Your task to perform on an android device: snooze an email in the gmail app Image 0: 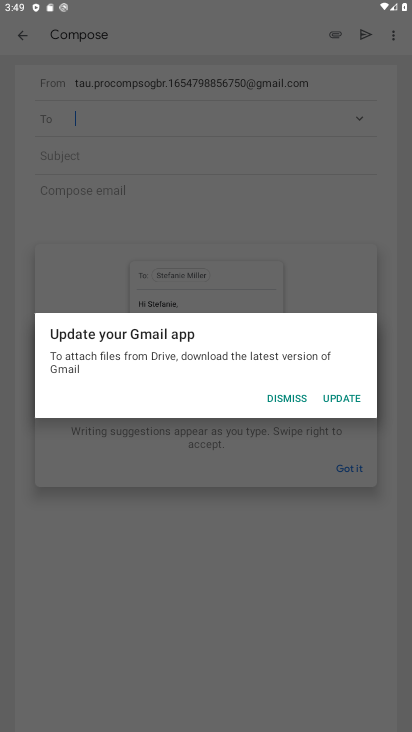
Step 0: click (293, 396)
Your task to perform on an android device: snooze an email in the gmail app Image 1: 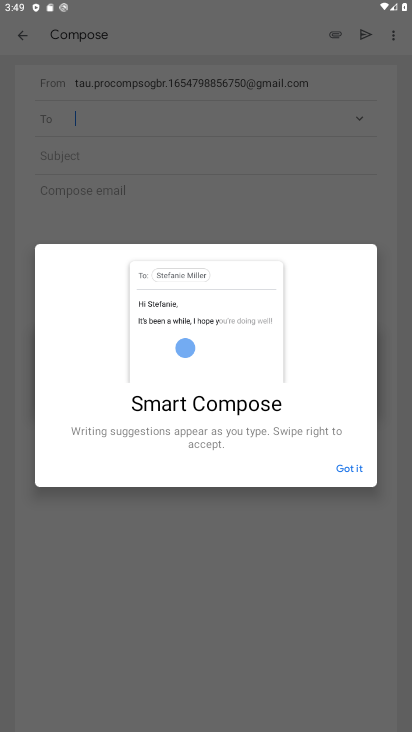
Step 1: click (348, 476)
Your task to perform on an android device: snooze an email in the gmail app Image 2: 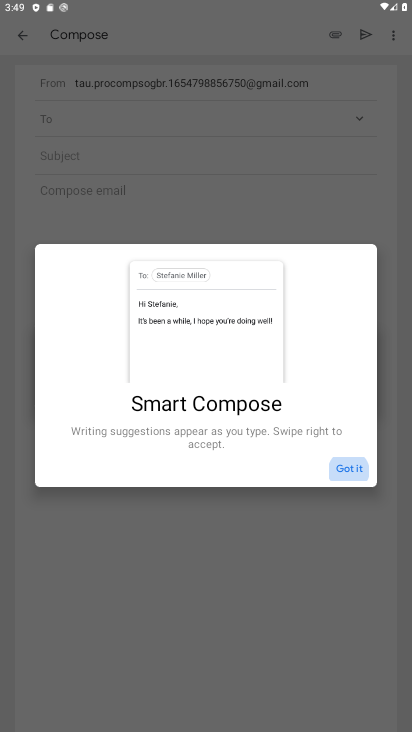
Step 2: click (348, 476)
Your task to perform on an android device: snooze an email in the gmail app Image 3: 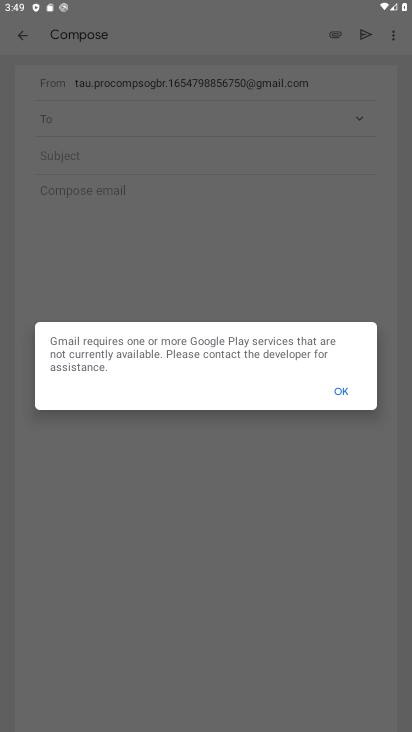
Step 3: click (346, 472)
Your task to perform on an android device: snooze an email in the gmail app Image 4: 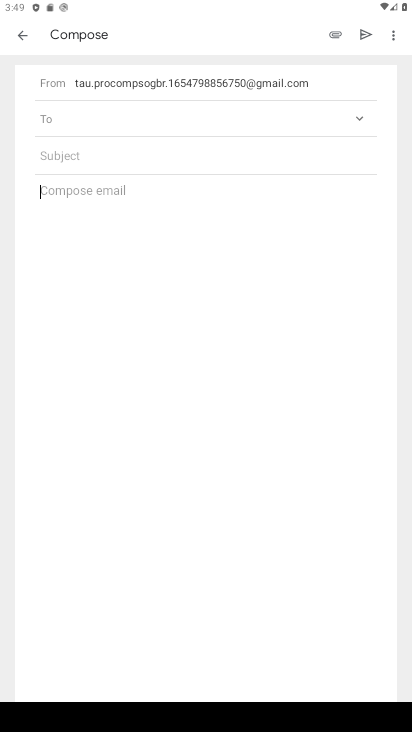
Step 4: click (31, 39)
Your task to perform on an android device: snooze an email in the gmail app Image 5: 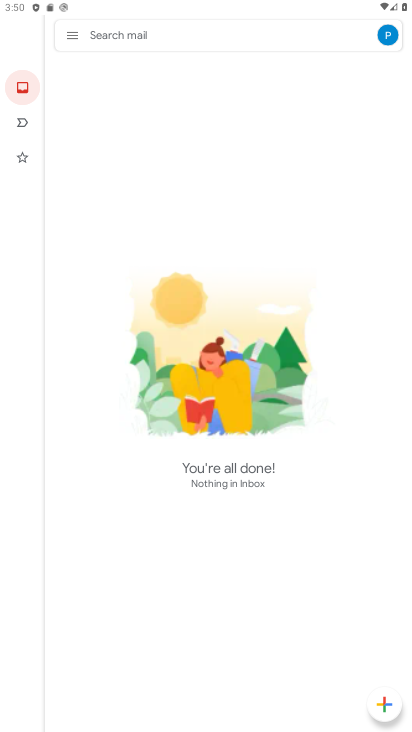
Step 5: click (81, 44)
Your task to perform on an android device: snooze an email in the gmail app Image 6: 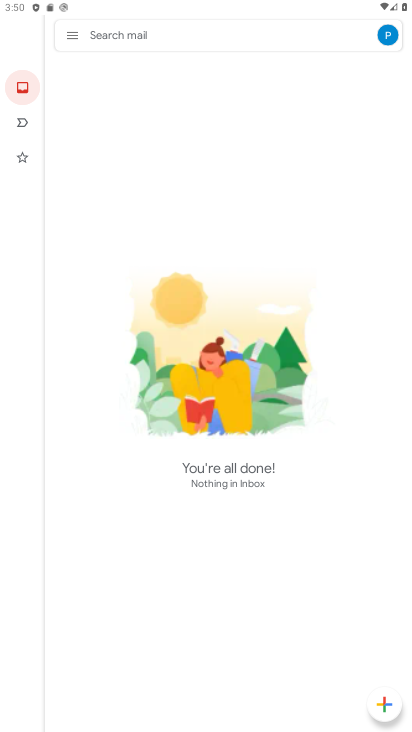
Step 6: click (76, 37)
Your task to perform on an android device: snooze an email in the gmail app Image 7: 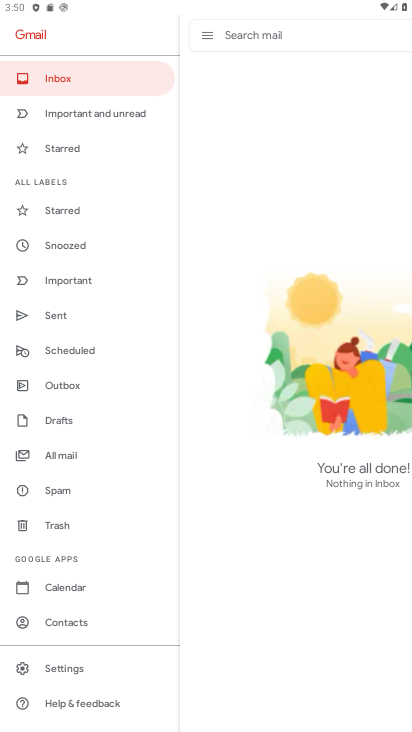
Step 7: click (50, 245)
Your task to perform on an android device: snooze an email in the gmail app Image 8: 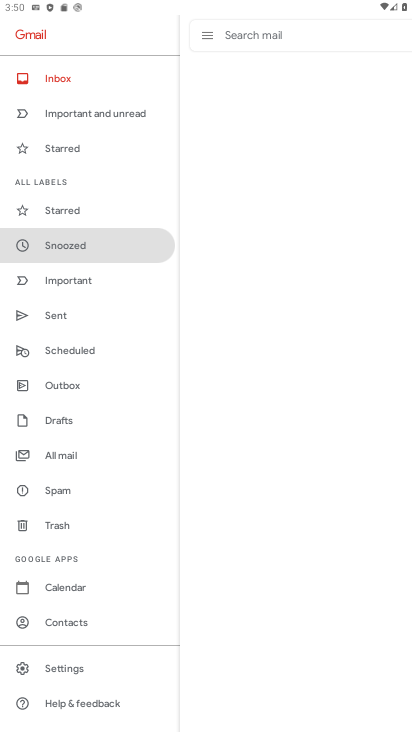
Step 8: click (50, 244)
Your task to perform on an android device: snooze an email in the gmail app Image 9: 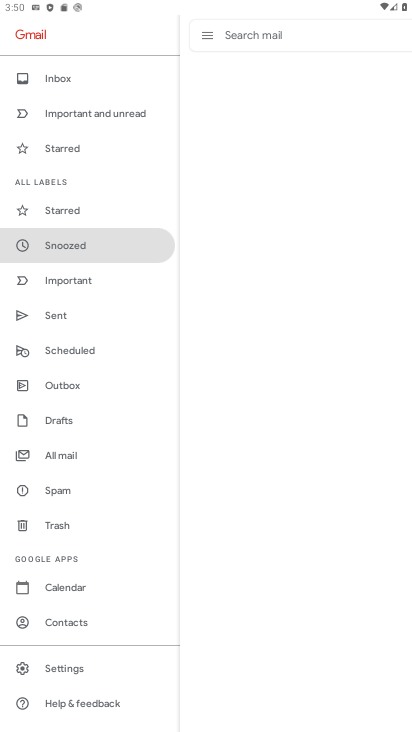
Step 9: click (51, 242)
Your task to perform on an android device: snooze an email in the gmail app Image 10: 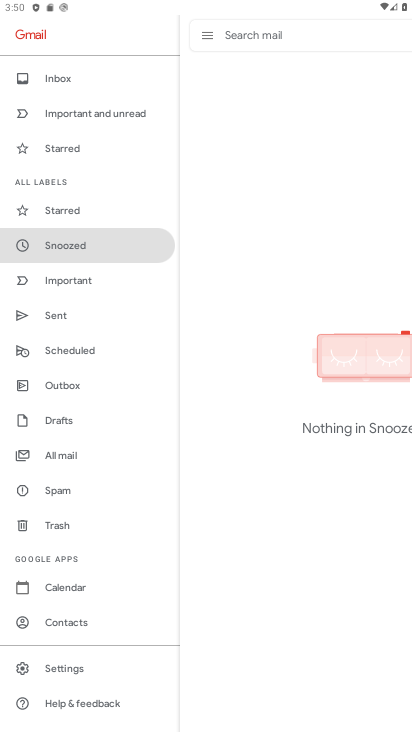
Step 10: task complete